Your task to perform on an android device: see sites visited before in the chrome app Image 0: 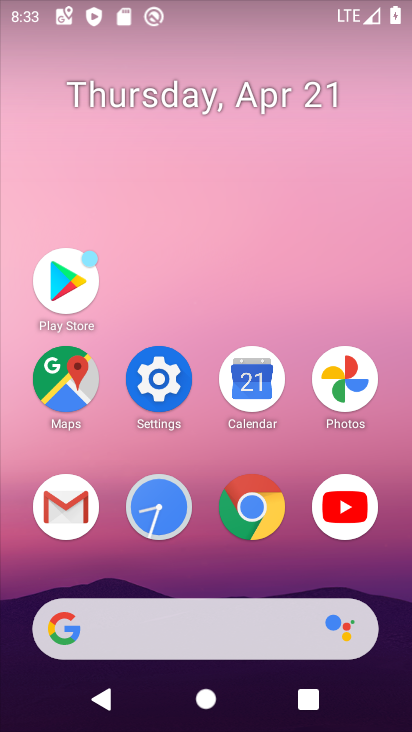
Step 0: click (246, 503)
Your task to perform on an android device: see sites visited before in the chrome app Image 1: 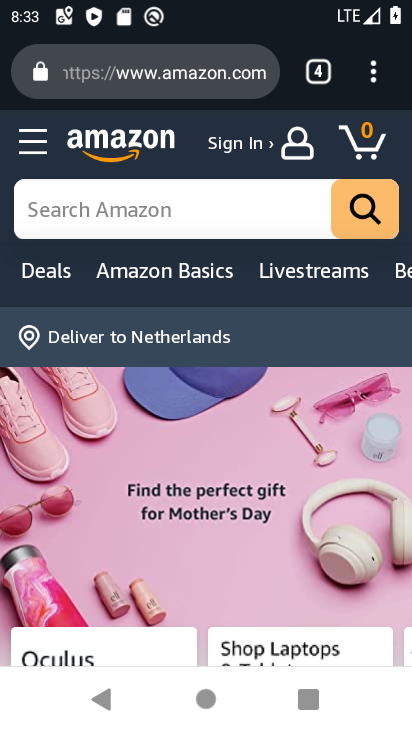
Step 1: click (374, 75)
Your task to perform on an android device: see sites visited before in the chrome app Image 2: 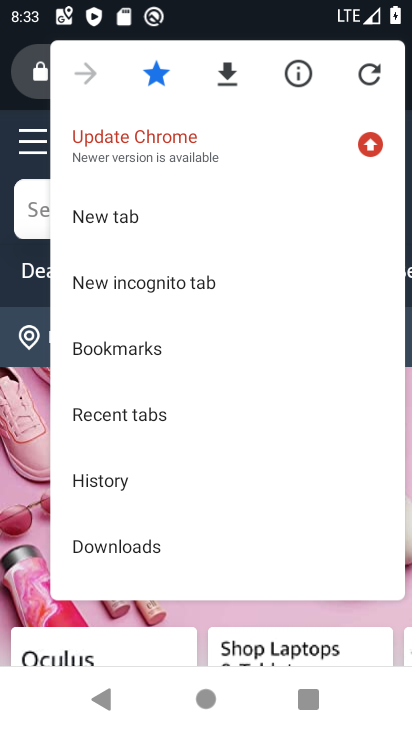
Step 2: click (98, 477)
Your task to perform on an android device: see sites visited before in the chrome app Image 3: 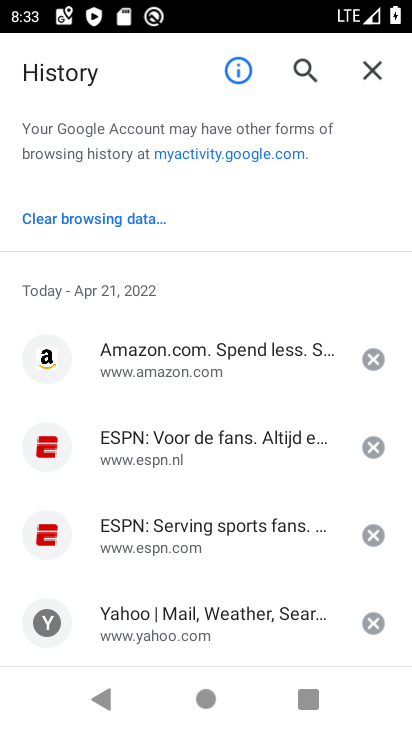
Step 3: task complete